Your task to perform on an android device: Open calendar and show me the third week of next month Image 0: 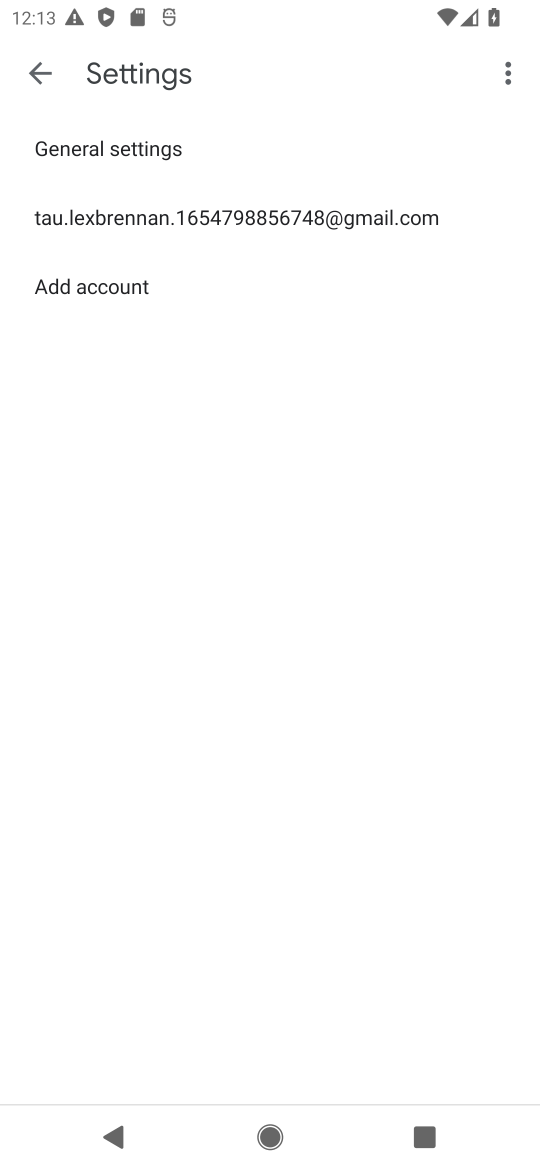
Step 0: press back button
Your task to perform on an android device: Open calendar and show me the third week of next month Image 1: 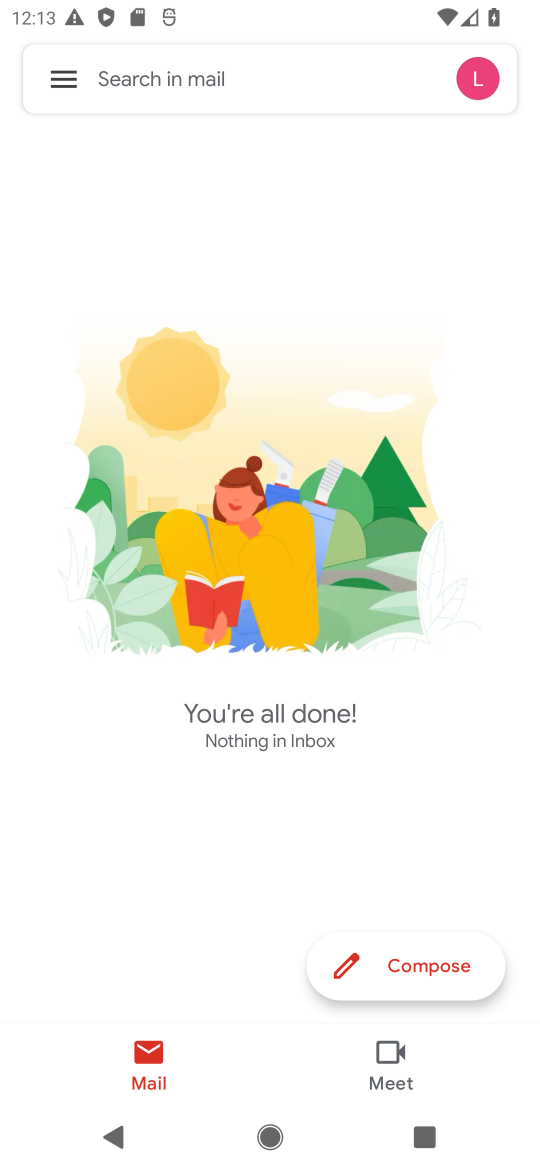
Step 1: press back button
Your task to perform on an android device: Open calendar and show me the third week of next month Image 2: 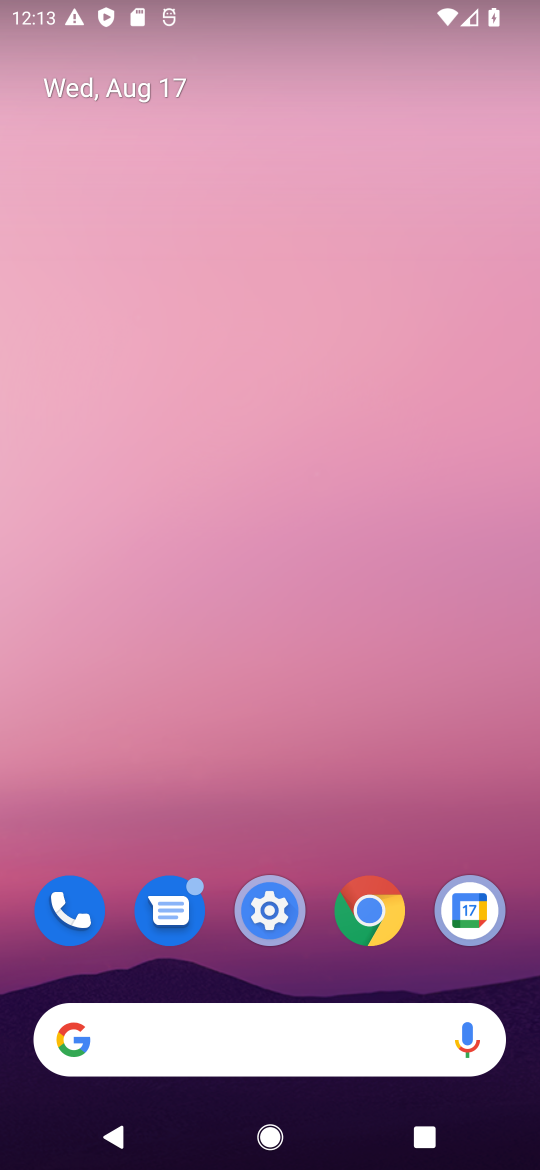
Step 2: click (456, 901)
Your task to perform on an android device: Open calendar and show me the third week of next month Image 3: 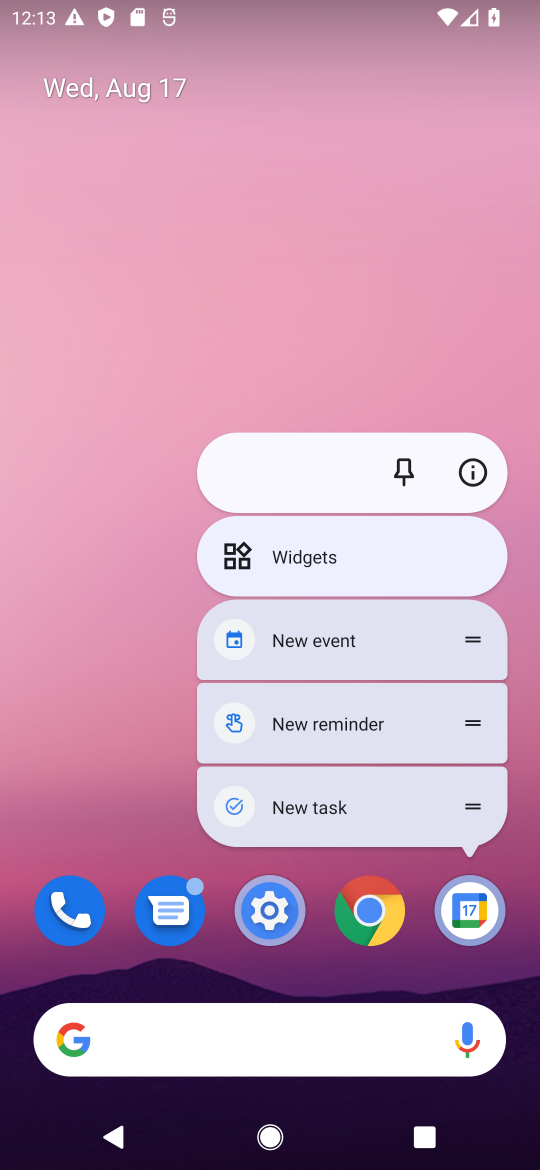
Step 3: click (456, 901)
Your task to perform on an android device: Open calendar and show me the third week of next month Image 4: 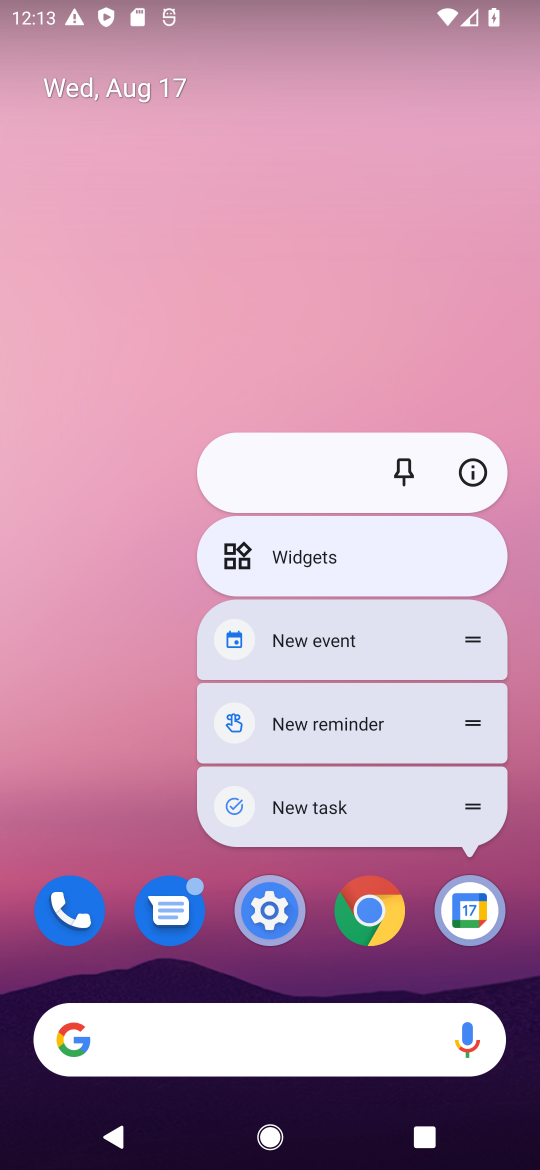
Step 4: click (480, 905)
Your task to perform on an android device: Open calendar and show me the third week of next month Image 5: 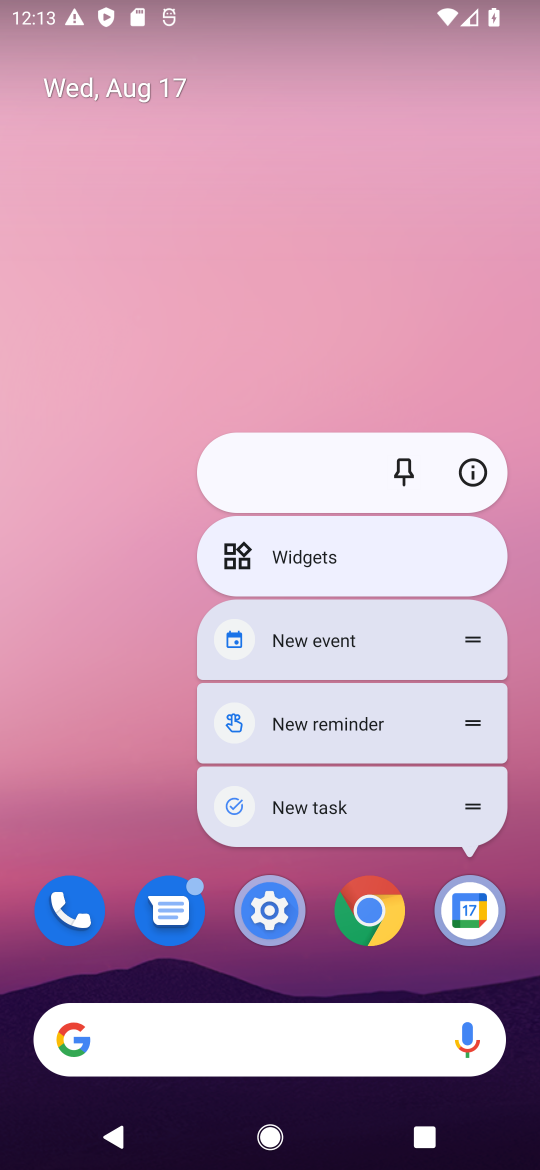
Step 5: click (466, 914)
Your task to perform on an android device: Open calendar and show me the third week of next month Image 6: 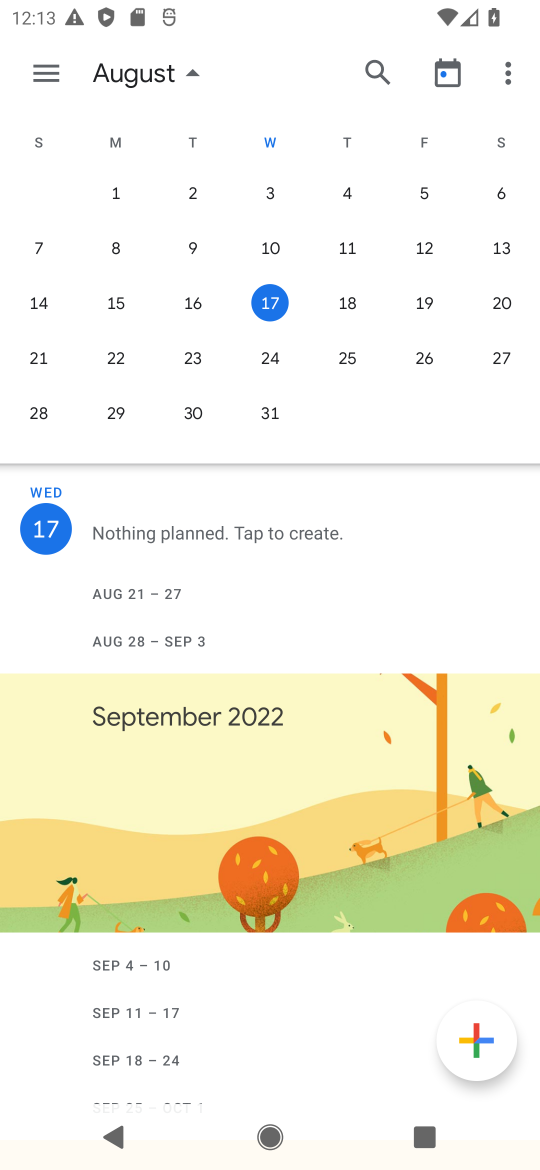
Step 6: drag from (510, 301) to (6, 279)
Your task to perform on an android device: Open calendar and show me the third week of next month Image 7: 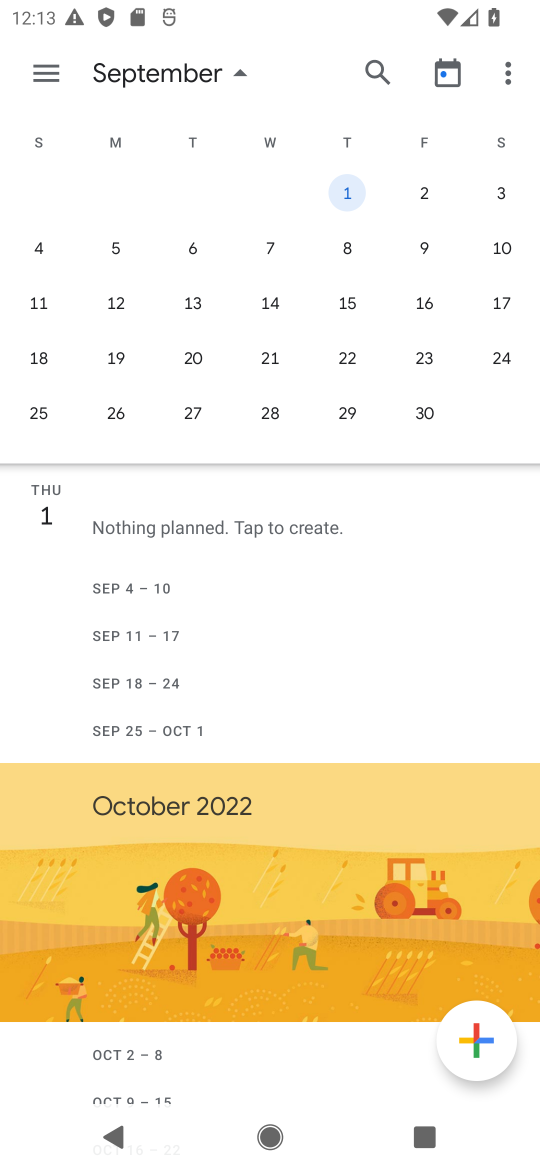
Step 7: click (118, 361)
Your task to perform on an android device: Open calendar and show me the third week of next month Image 8: 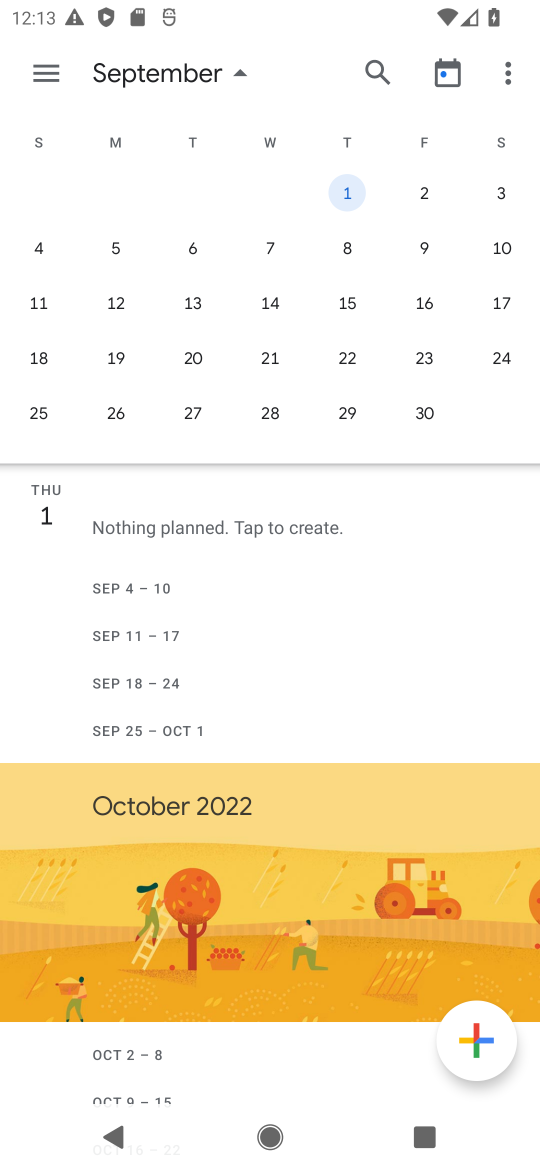
Step 8: click (115, 359)
Your task to perform on an android device: Open calendar and show me the third week of next month Image 9: 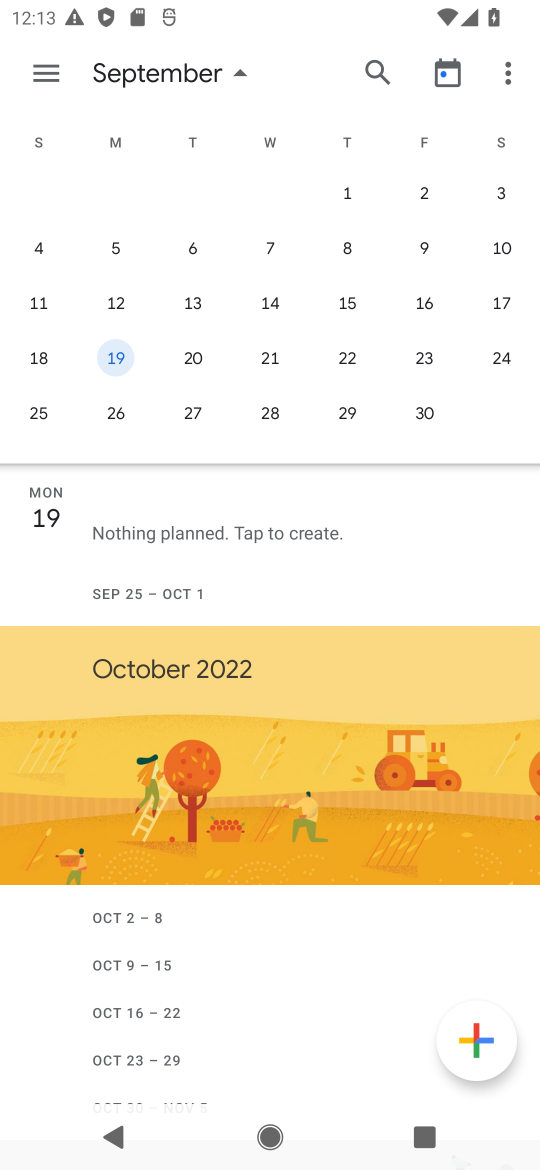
Step 9: task complete